Your task to perform on an android device: toggle priority inbox in the gmail app Image 0: 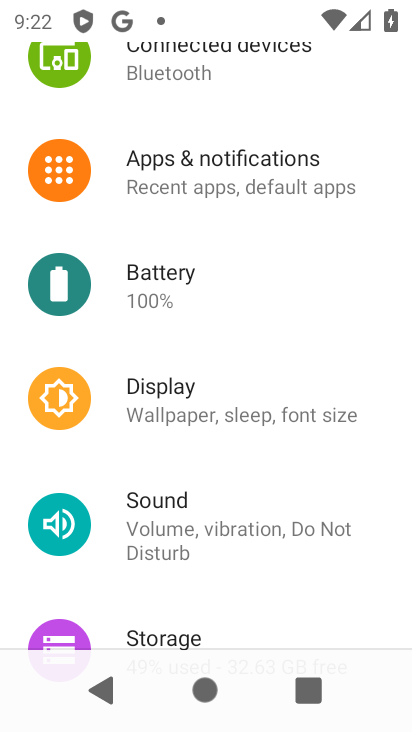
Step 0: press home button
Your task to perform on an android device: toggle priority inbox in the gmail app Image 1: 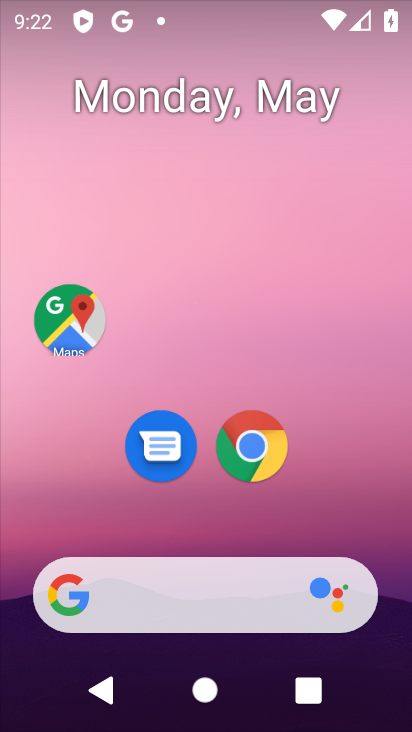
Step 1: drag from (101, 522) to (261, 51)
Your task to perform on an android device: toggle priority inbox in the gmail app Image 2: 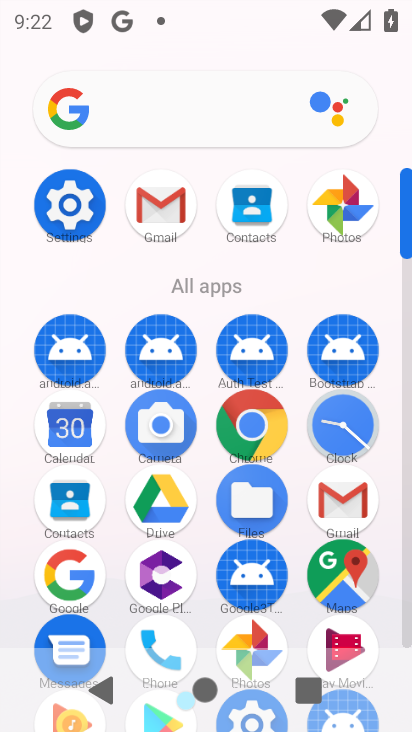
Step 2: click (355, 507)
Your task to perform on an android device: toggle priority inbox in the gmail app Image 3: 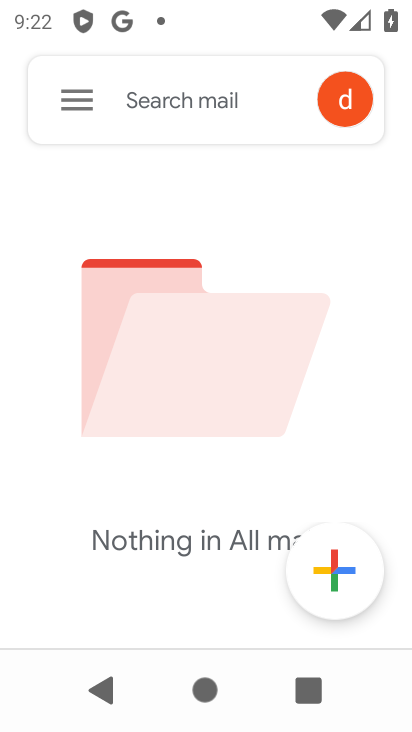
Step 3: click (91, 88)
Your task to perform on an android device: toggle priority inbox in the gmail app Image 4: 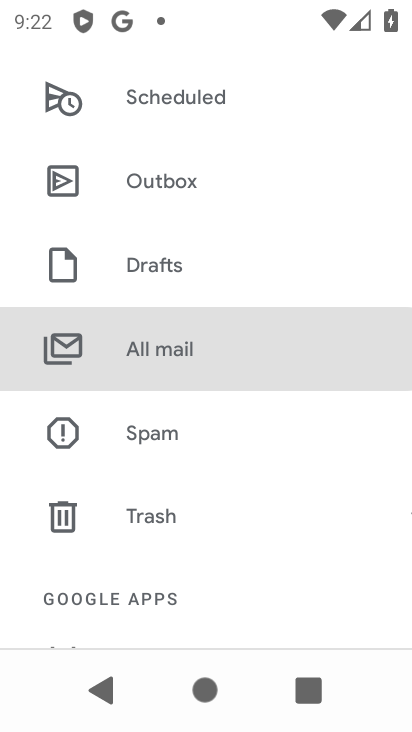
Step 4: drag from (117, 579) to (223, 187)
Your task to perform on an android device: toggle priority inbox in the gmail app Image 5: 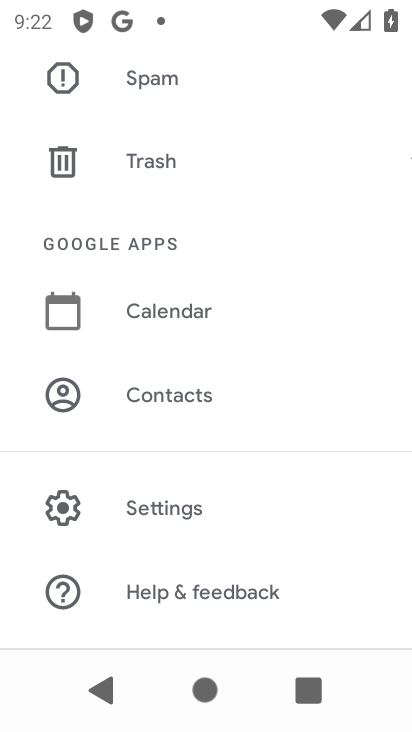
Step 5: click (221, 518)
Your task to perform on an android device: toggle priority inbox in the gmail app Image 6: 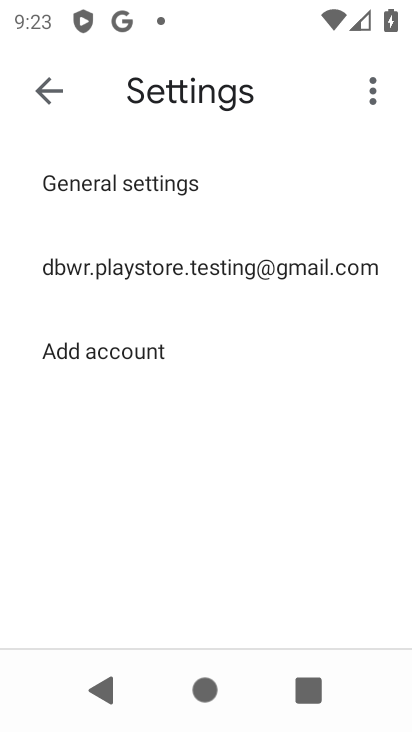
Step 6: click (241, 258)
Your task to perform on an android device: toggle priority inbox in the gmail app Image 7: 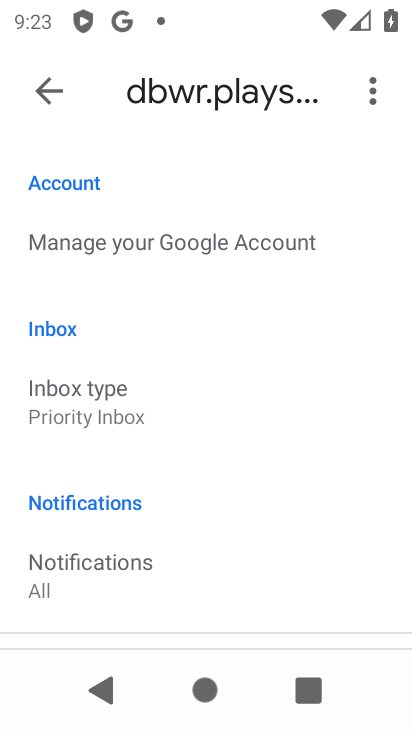
Step 7: drag from (175, 621) to (227, 451)
Your task to perform on an android device: toggle priority inbox in the gmail app Image 8: 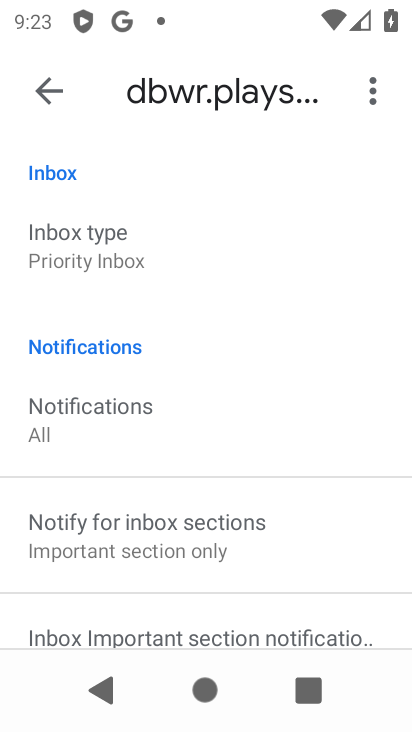
Step 8: click (186, 264)
Your task to perform on an android device: toggle priority inbox in the gmail app Image 9: 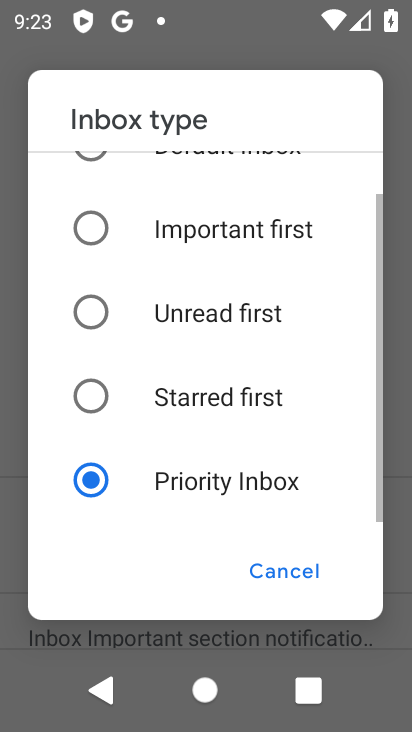
Step 9: drag from (191, 259) to (179, 564)
Your task to perform on an android device: toggle priority inbox in the gmail app Image 10: 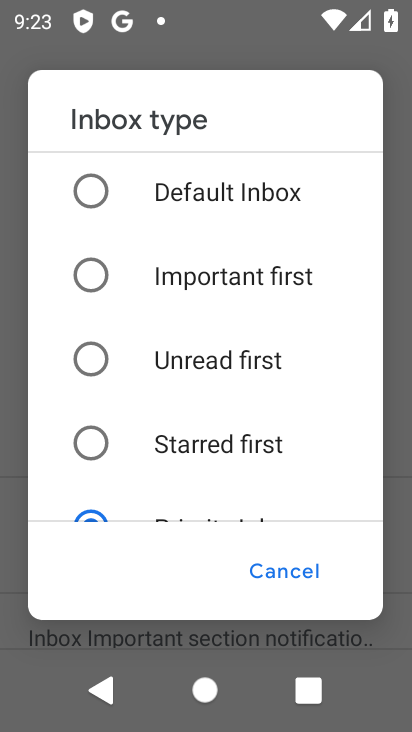
Step 10: click (213, 282)
Your task to perform on an android device: toggle priority inbox in the gmail app Image 11: 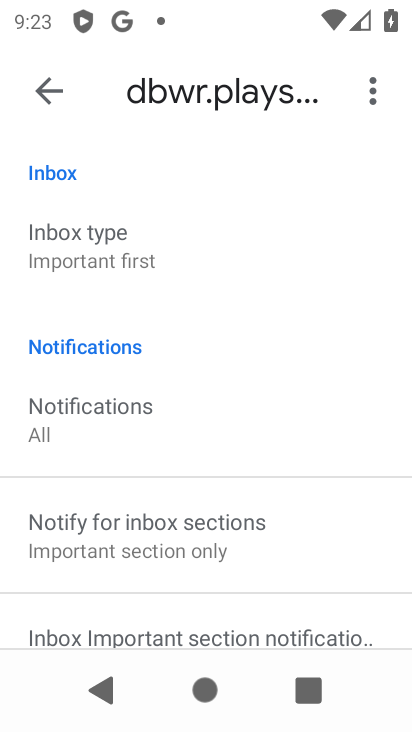
Step 11: task complete